Your task to perform on an android device: Go to notification settings Image 0: 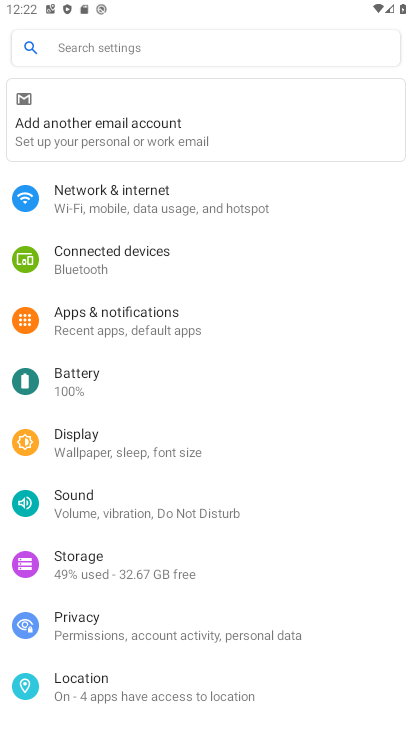
Step 0: click (98, 326)
Your task to perform on an android device: Go to notification settings Image 1: 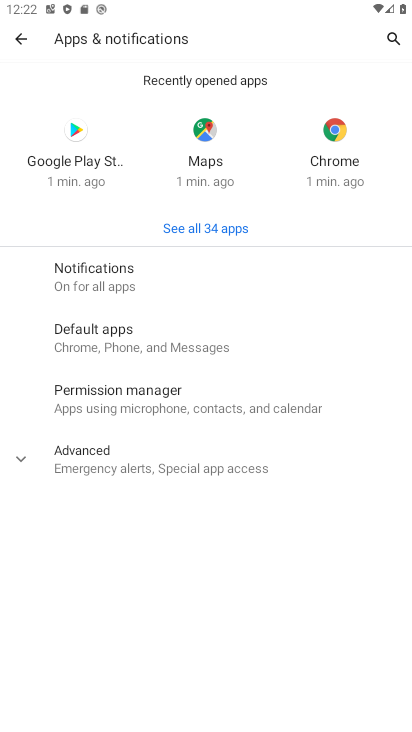
Step 1: click (80, 265)
Your task to perform on an android device: Go to notification settings Image 2: 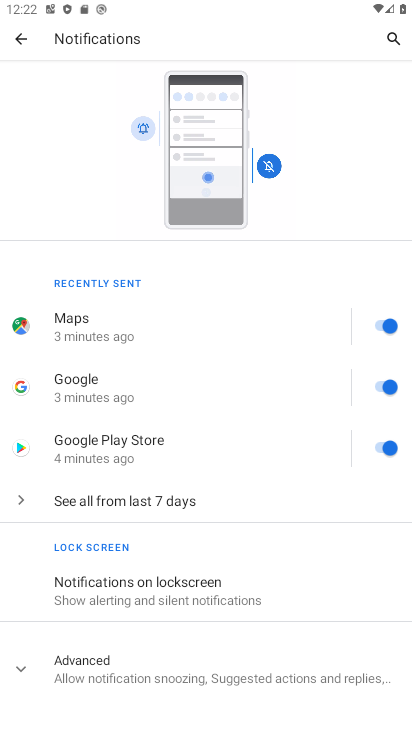
Step 2: task complete